Your task to perform on an android device: turn off priority inbox in the gmail app Image 0: 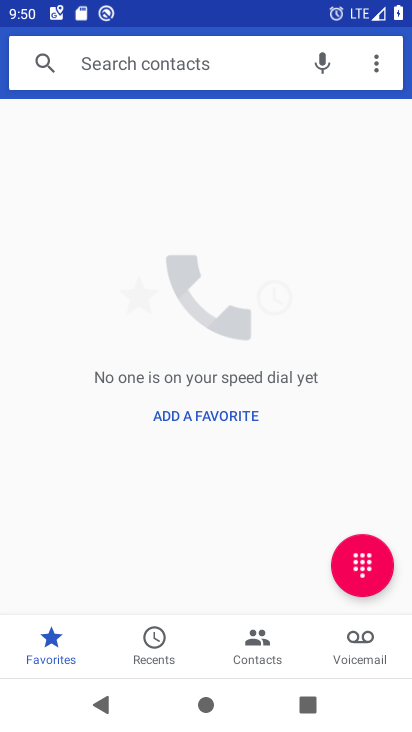
Step 0: press home button
Your task to perform on an android device: turn off priority inbox in the gmail app Image 1: 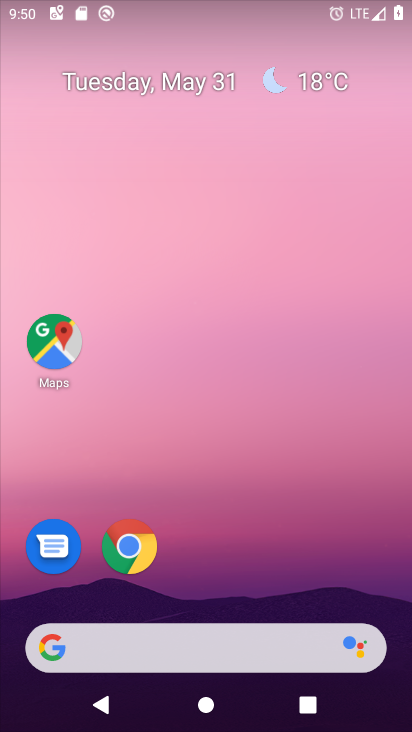
Step 1: drag from (207, 594) to (376, 9)
Your task to perform on an android device: turn off priority inbox in the gmail app Image 2: 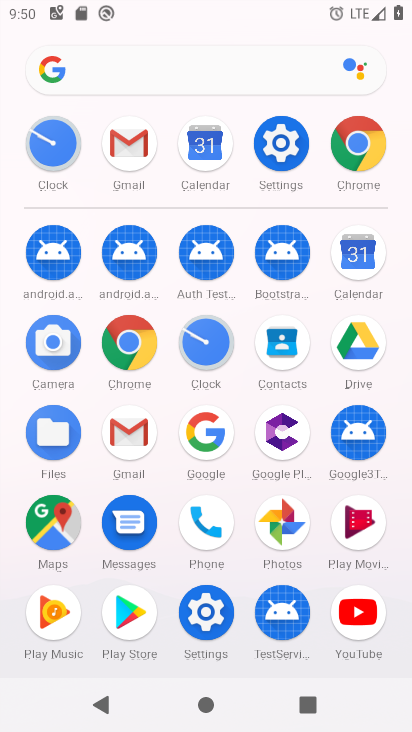
Step 2: click (128, 445)
Your task to perform on an android device: turn off priority inbox in the gmail app Image 3: 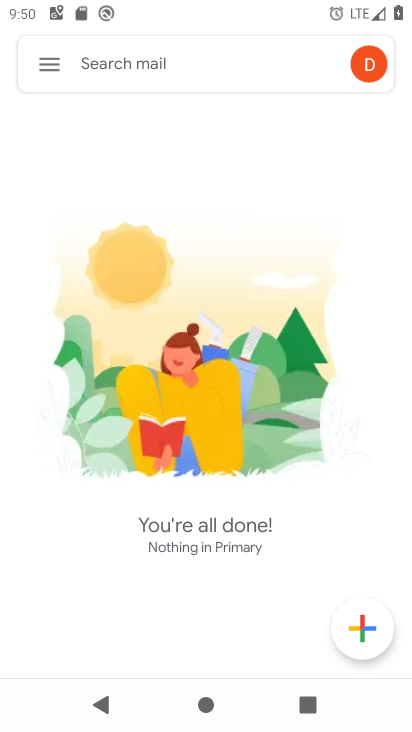
Step 3: click (54, 61)
Your task to perform on an android device: turn off priority inbox in the gmail app Image 4: 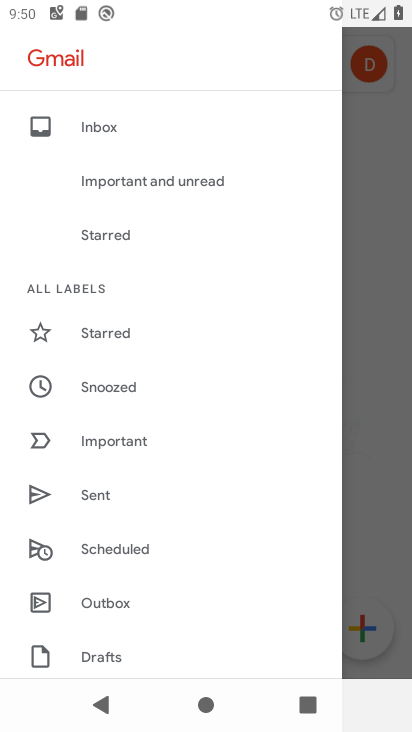
Step 4: drag from (127, 592) to (145, 305)
Your task to perform on an android device: turn off priority inbox in the gmail app Image 5: 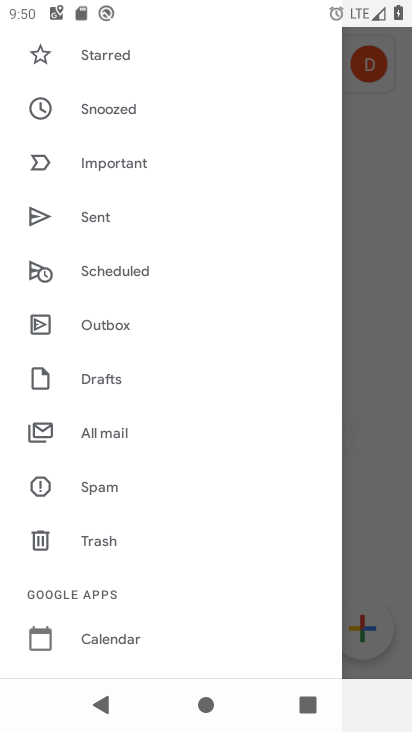
Step 5: drag from (102, 579) to (157, 204)
Your task to perform on an android device: turn off priority inbox in the gmail app Image 6: 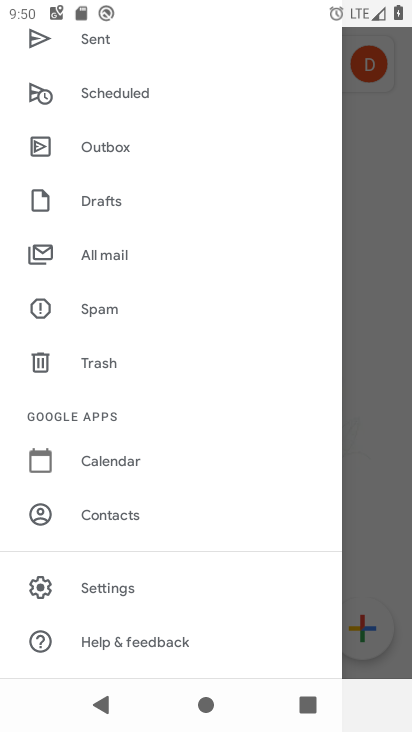
Step 6: click (122, 590)
Your task to perform on an android device: turn off priority inbox in the gmail app Image 7: 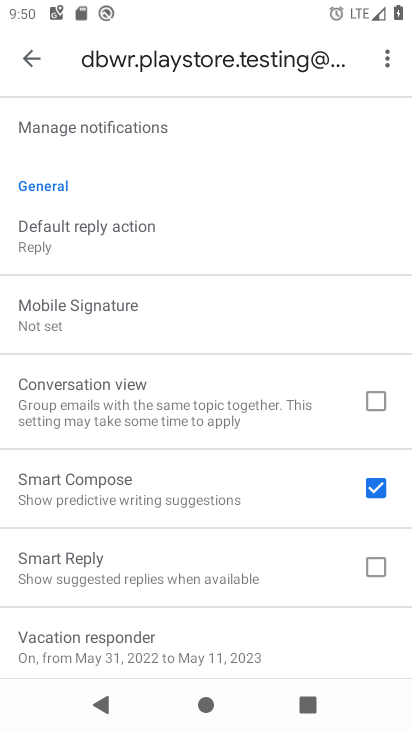
Step 7: click (30, 60)
Your task to perform on an android device: turn off priority inbox in the gmail app Image 8: 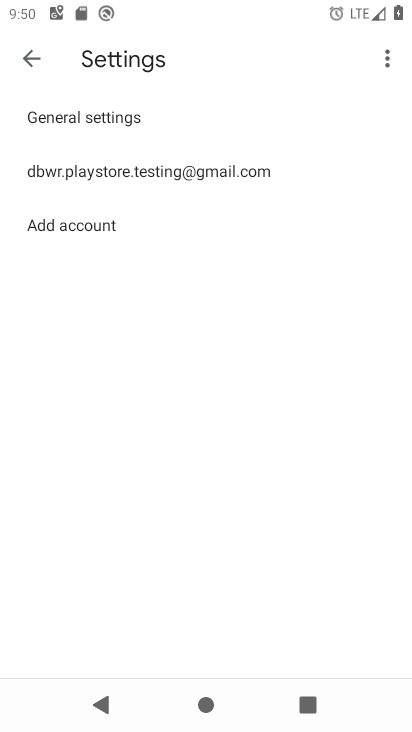
Step 8: click (114, 178)
Your task to perform on an android device: turn off priority inbox in the gmail app Image 9: 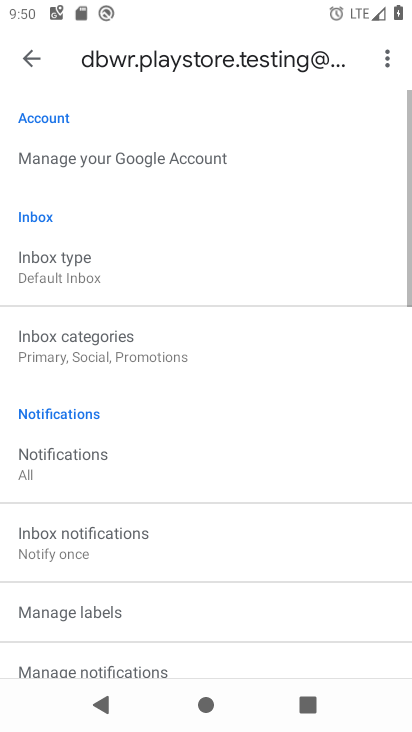
Step 9: click (119, 275)
Your task to perform on an android device: turn off priority inbox in the gmail app Image 10: 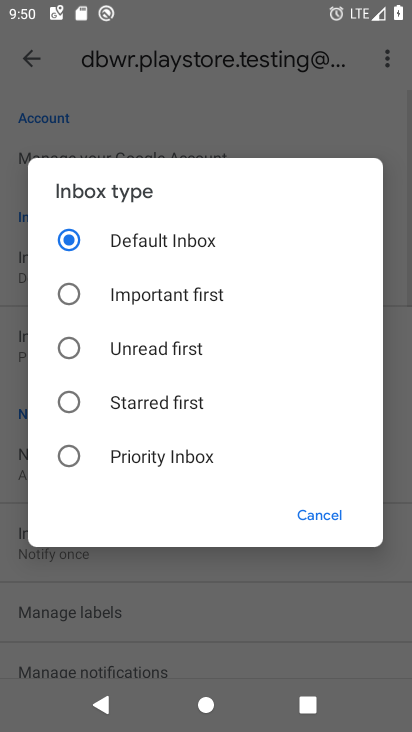
Step 10: click (123, 286)
Your task to perform on an android device: turn off priority inbox in the gmail app Image 11: 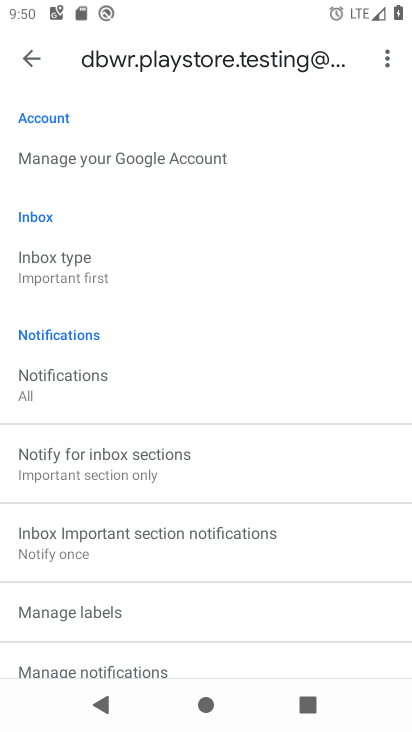
Step 11: task complete